Your task to perform on an android device: Turn on the flashlight Image 0: 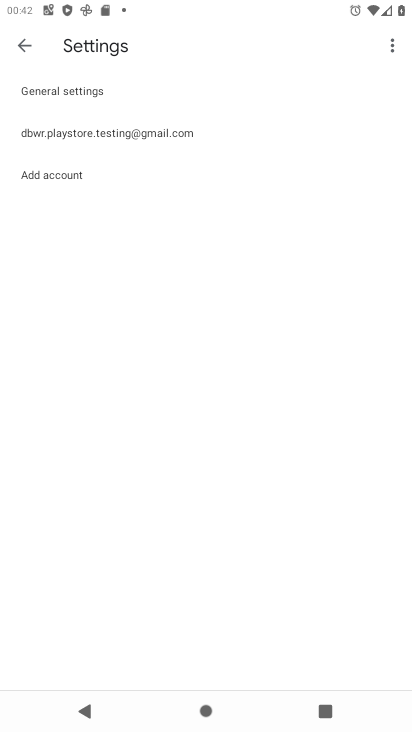
Step 0: drag from (211, 264) to (175, 466)
Your task to perform on an android device: Turn on the flashlight Image 1: 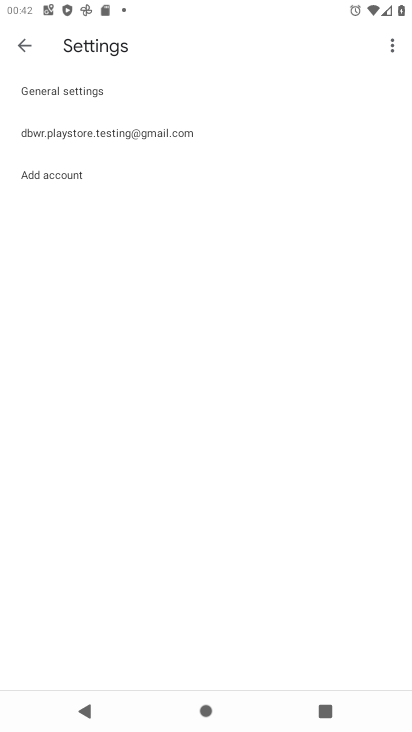
Step 1: task complete